Your task to perform on an android device: allow cookies in the chrome app Image 0: 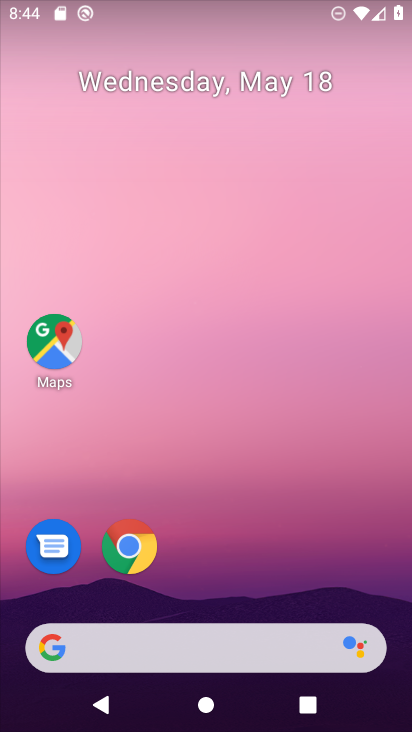
Step 0: drag from (227, 658) to (340, 180)
Your task to perform on an android device: allow cookies in the chrome app Image 1: 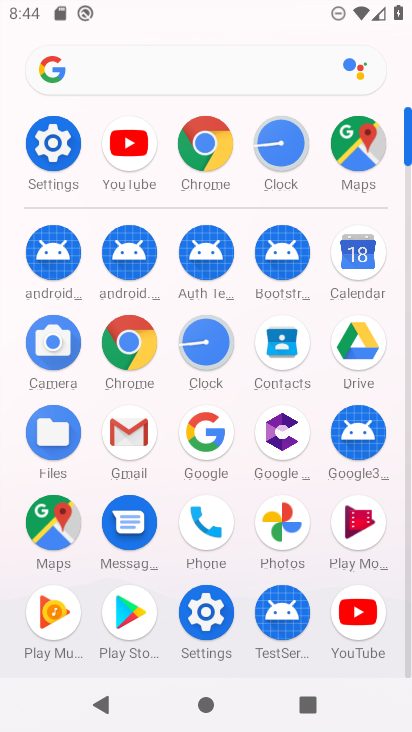
Step 1: click (204, 149)
Your task to perform on an android device: allow cookies in the chrome app Image 2: 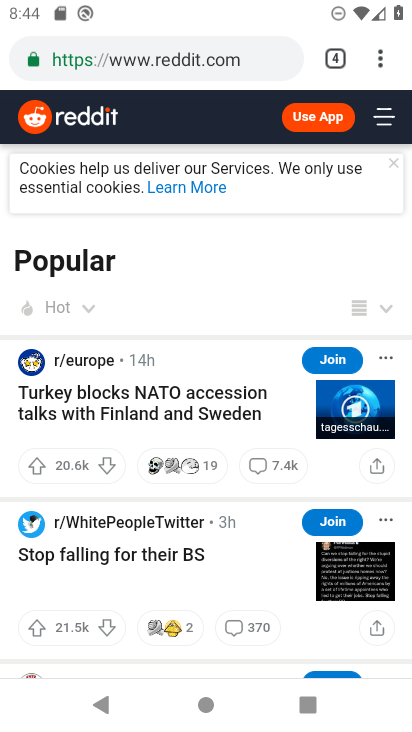
Step 2: click (369, 70)
Your task to perform on an android device: allow cookies in the chrome app Image 3: 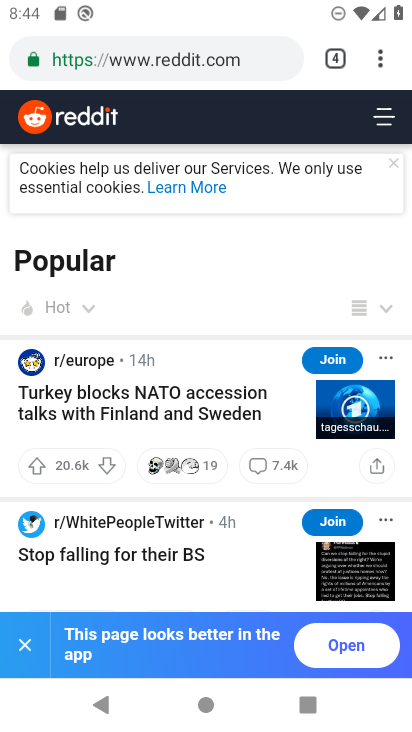
Step 3: click (379, 65)
Your task to perform on an android device: allow cookies in the chrome app Image 4: 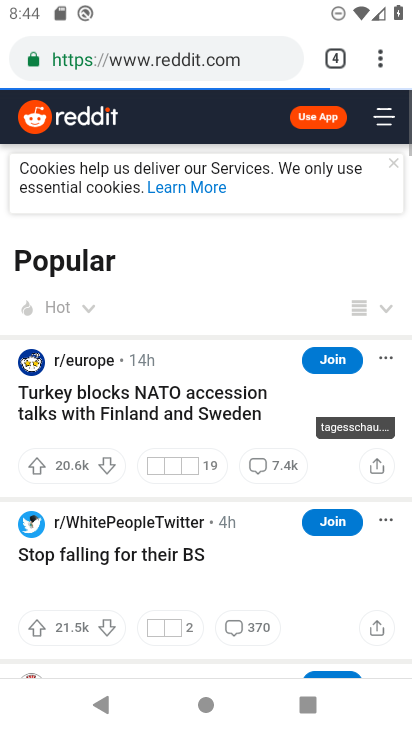
Step 4: click (370, 70)
Your task to perform on an android device: allow cookies in the chrome app Image 5: 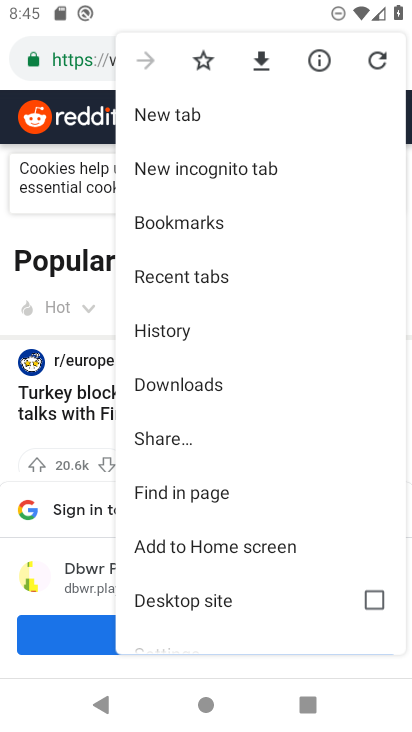
Step 5: drag from (259, 544) to (326, 313)
Your task to perform on an android device: allow cookies in the chrome app Image 6: 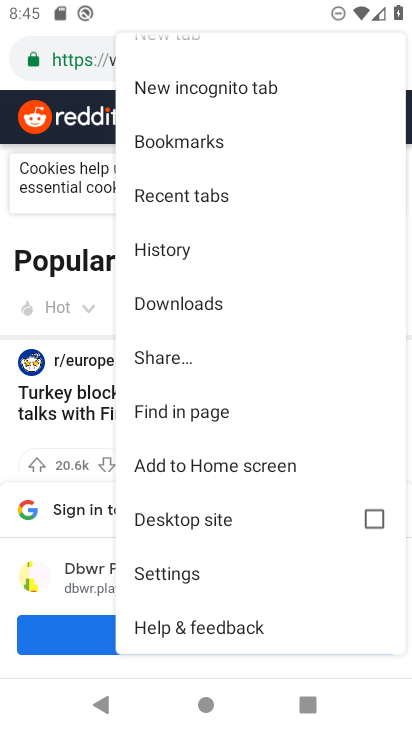
Step 6: click (191, 571)
Your task to perform on an android device: allow cookies in the chrome app Image 7: 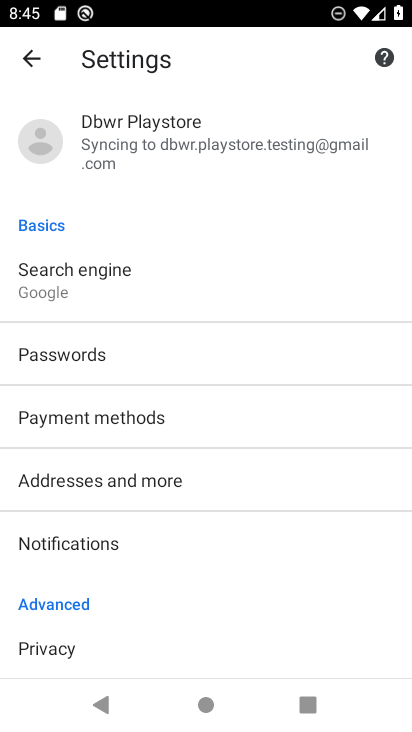
Step 7: drag from (177, 543) to (254, 382)
Your task to perform on an android device: allow cookies in the chrome app Image 8: 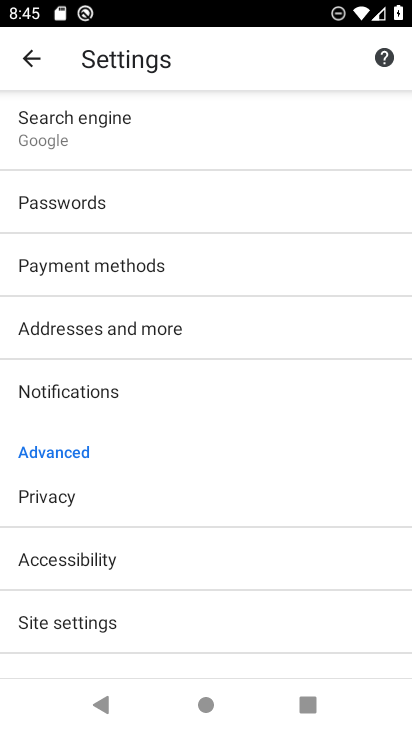
Step 8: click (93, 616)
Your task to perform on an android device: allow cookies in the chrome app Image 9: 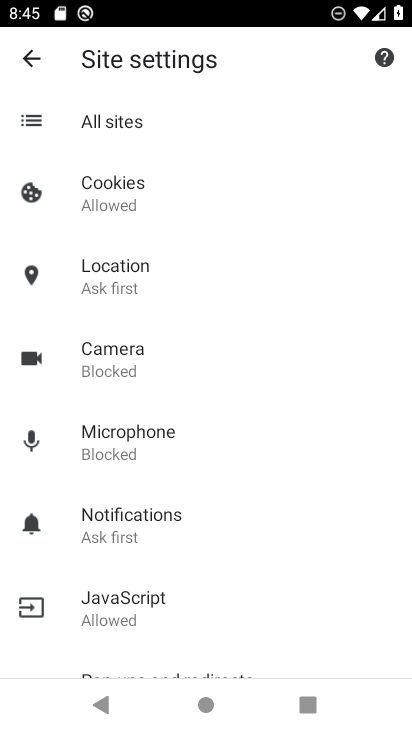
Step 9: click (176, 186)
Your task to perform on an android device: allow cookies in the chrome app Image 10: 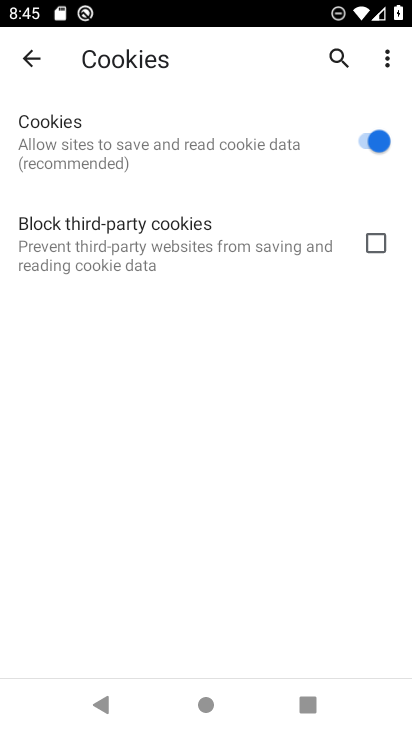
Step 10: click (329, 154)
Your task to perform on an android device: allow cookies in the chrome app Image 11: 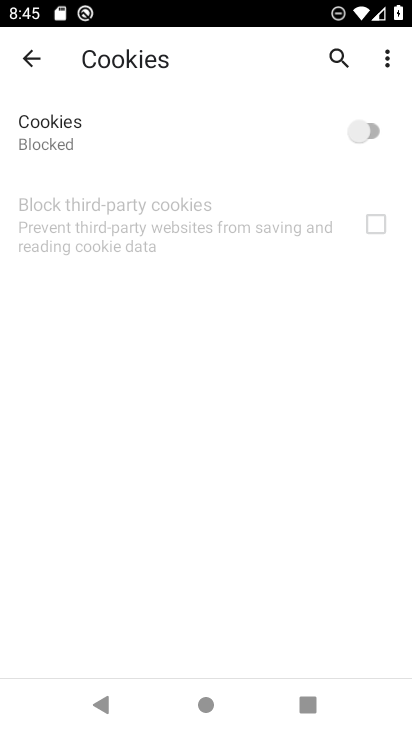
Step 11: click (325, 151)
Your task to perform on an android device: allow cookies in the chrome app Image 12: 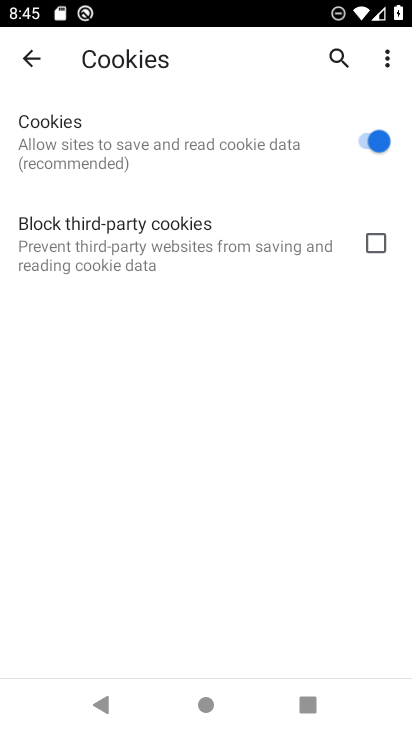
Step 12: task complete